Your task to perform on an android device: toggle improve location accuracy Image 0: 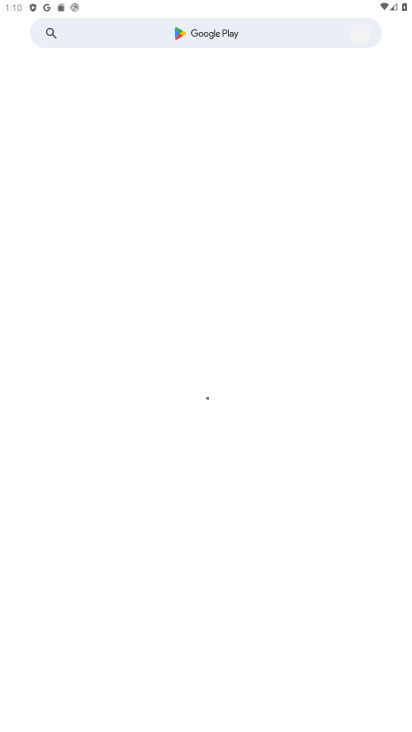
Step 0: press home button
Your task to perform on an android device: toggle improve location accuracy Image 1: 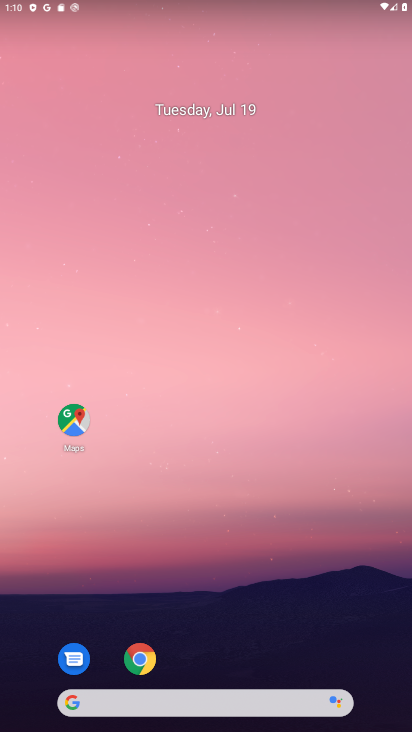
Step 1: drag from (240, 672) to (280, 224)
Your task to perform on an android device: toggle improve location accuracy Image 2: 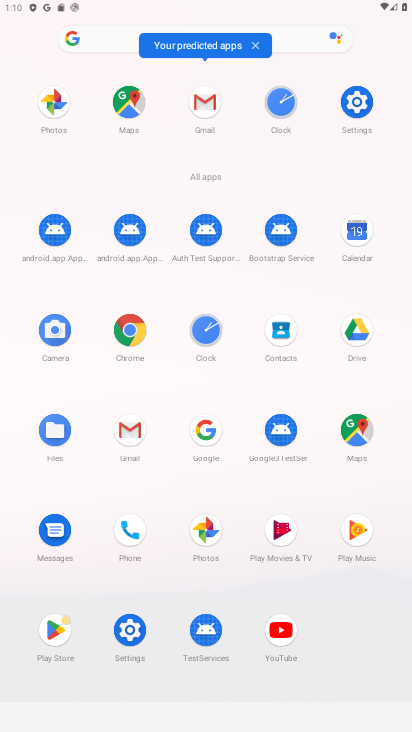
Step 2: click (142, 641)
Your task to perform on an android device: toggle improve location accuracy Image 3: 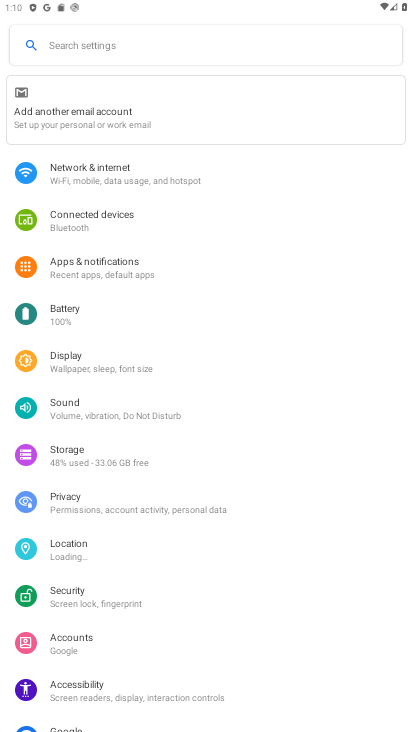
Step 3: click (99, 555)
Your task to perform on an android device: toggle improve location accuracy Image 4: 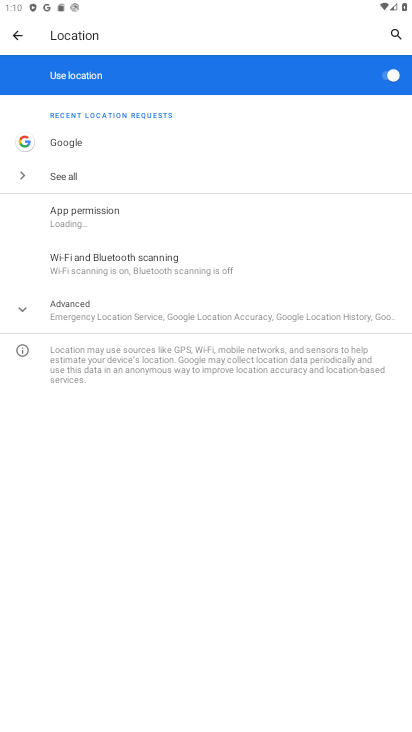
Step 4: click (167, 318)
Your task to perform on an android device: toggle improve location accuracy Image 5: 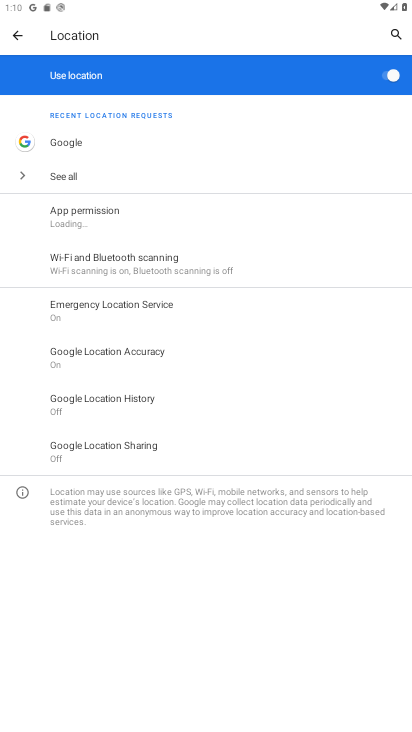
Step 5: click (160, 354)
Your task to perform on an android device: toggle improve location accuracy Image 6: 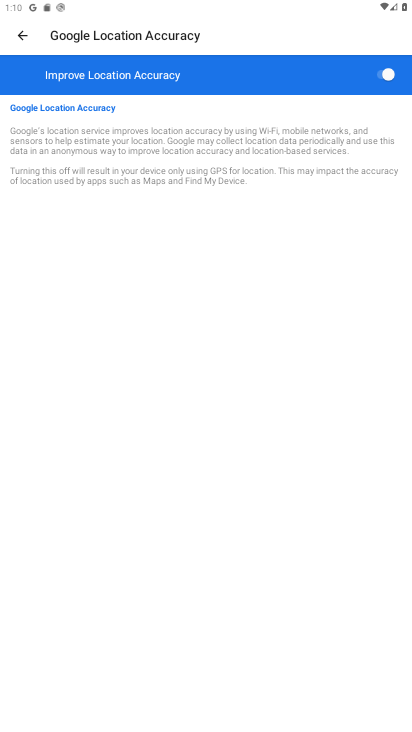
Step 6: click (382, 72)
Your task to perform on an android device: toggle improve location accuracy Image 7: 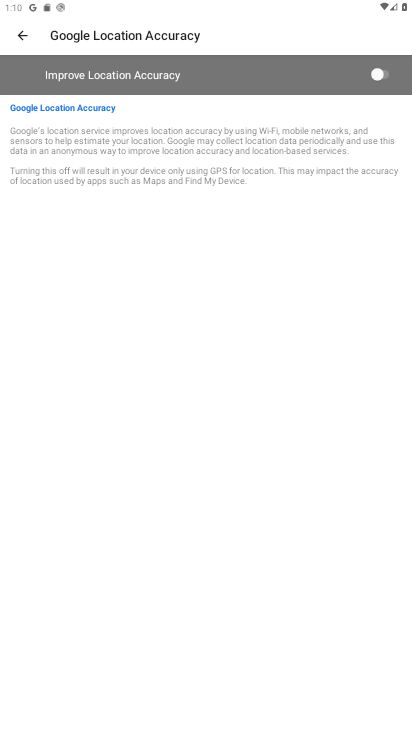
Step 7: task complete